Your task to perform on an android device: Open Yahoo.com Image 0: 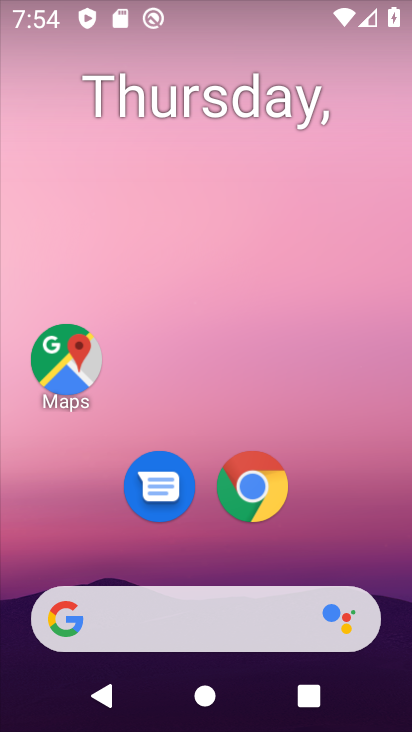
Step 0: drag from (219, 639) to (303, 72)
Your task to perform on an android device: Open Yahoo.com Image 1: 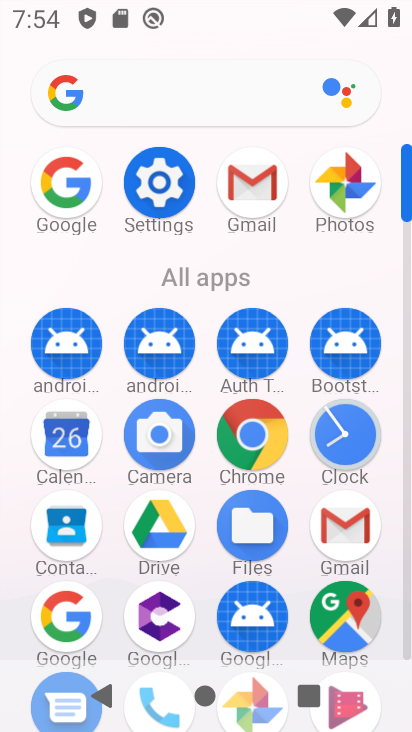
Step 1: click (266, 441)
Your task to perform on an android device: Open Yahoo.com Image 2: 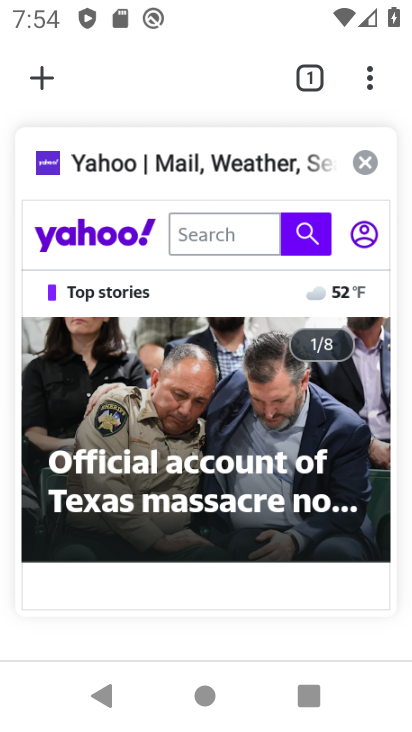
Step 2: click (242, 352)
Your task to perform on an android device: Open Yahoo.com Image 3: 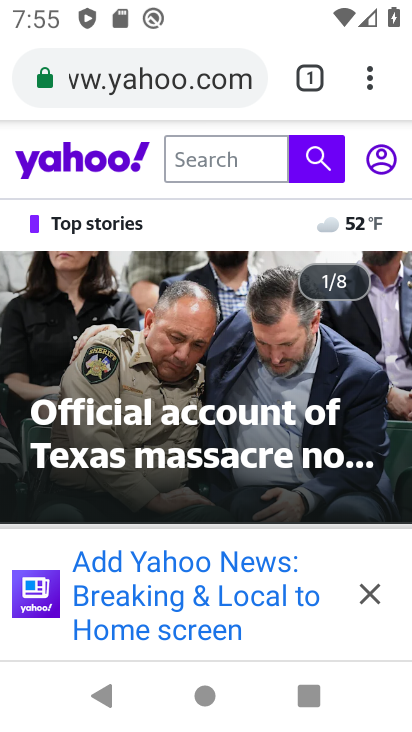
Step 3: task complete